Your task to perform on an android device: What is the recent news? Image 0: 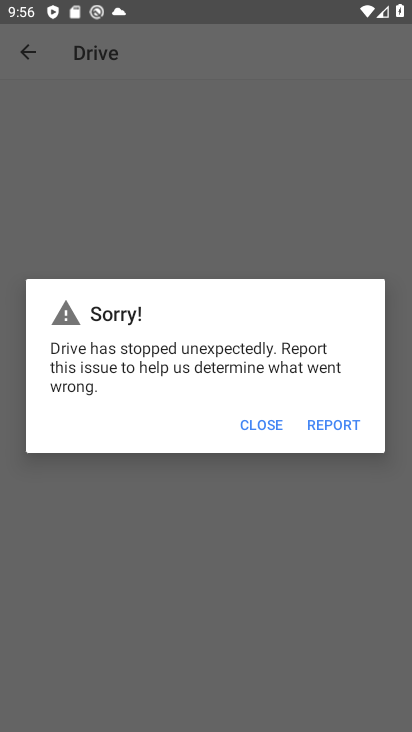
Step 0: click (243, 421)
Your task to perform on an android device: What is the recent news? Image 1: 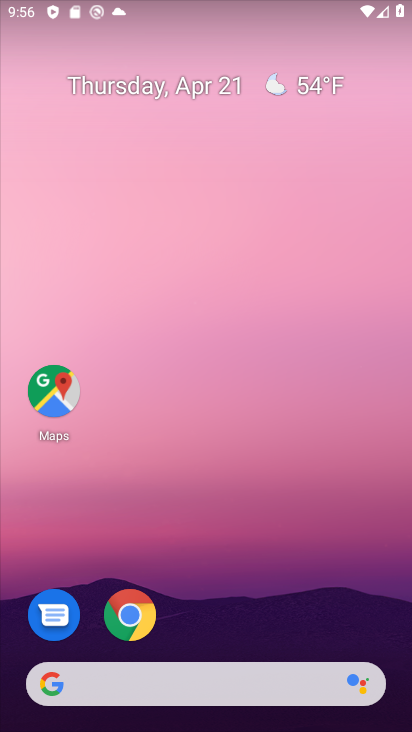
Step 1: task complete